Your task to perform on an android device: Open Google Chrome and open the bookmarks view Image 0: 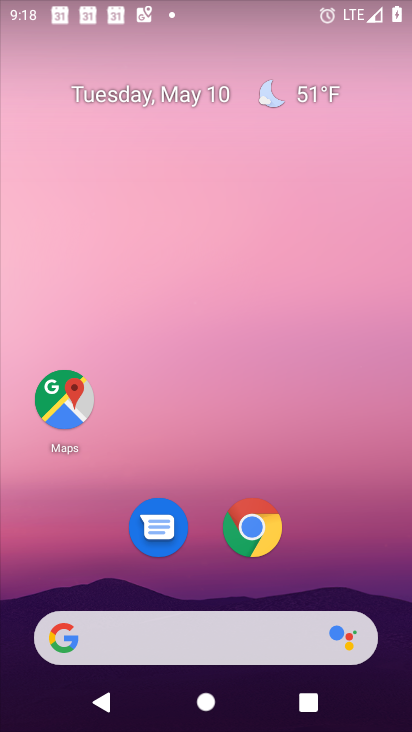
Step 0: click (261, 507)
Your task to perform on an android device: Open Google Chrome and open the bookmarks view Image 1: 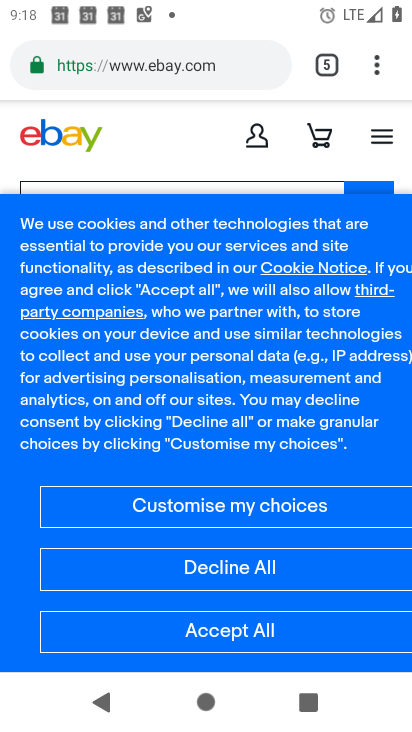
Step 1: click (369, 74)
Your task to perform on an android device: Open Google Chrome and open the bookmarks view Image 2: 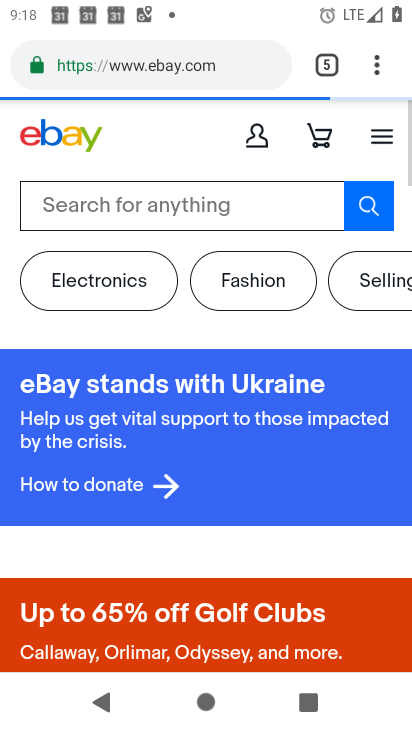
Step 2: task complete